Your task to perform on an android device: add a label to a message in the gmail app Image 0: 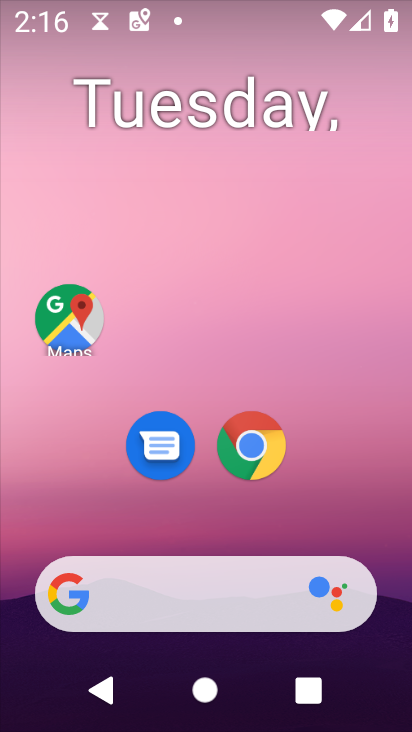
Step 0: drag from (344, 562) to (305, 86)
Your task to perform on an android device: add a label to a message in the gmail app Image 1: 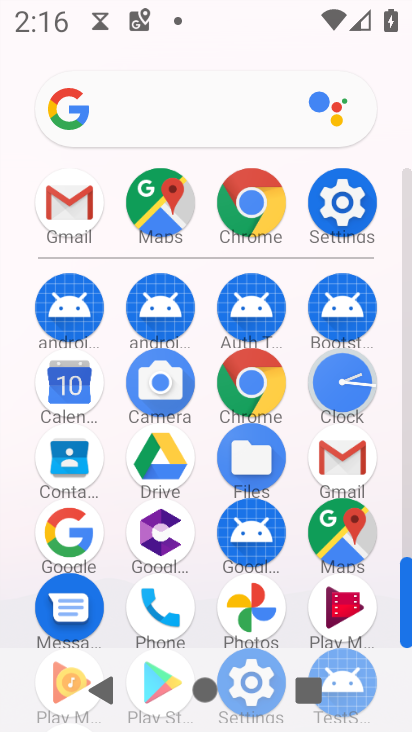
Step 1: click (328, 466)
Your task to perform on an android device: add a label to a message in the gmail app Image 2: 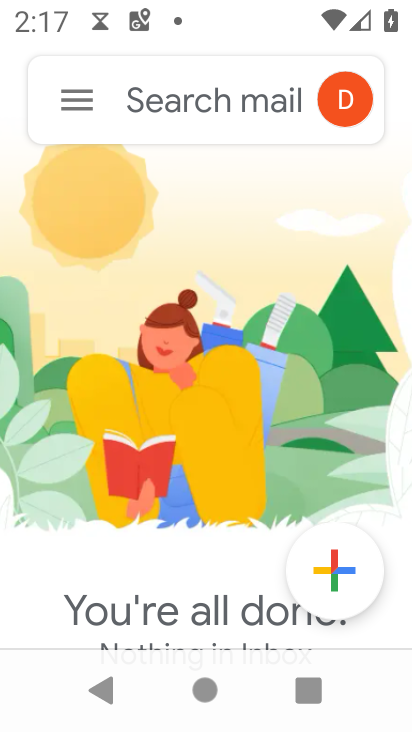
Step 2: click (81, 102)
Your task to perform on an android device: add a label to a message in the gmail app Image 3: 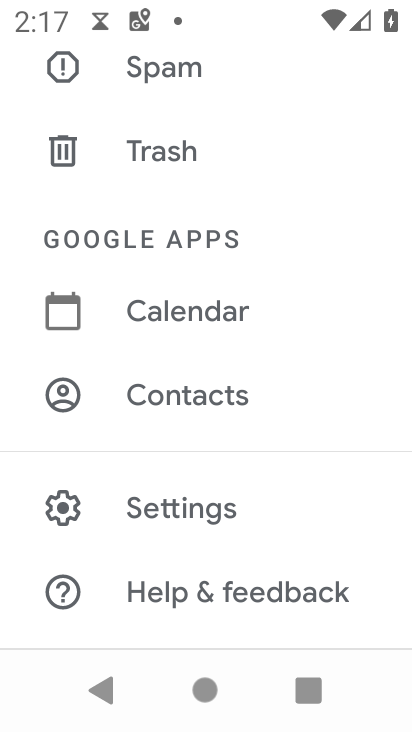
Step 3: drag from (209, 234) to (242, 672)
Your task to perform on an android device: add a label to a message in the gmail app Image 4: 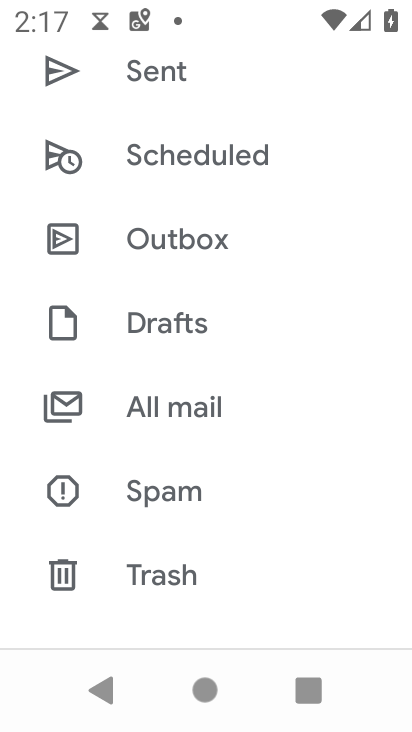
Step 4: drag from (190, 255) to (239, 533)
Your task to perform on an android device: add a label to a message in the gmail app Image 5: 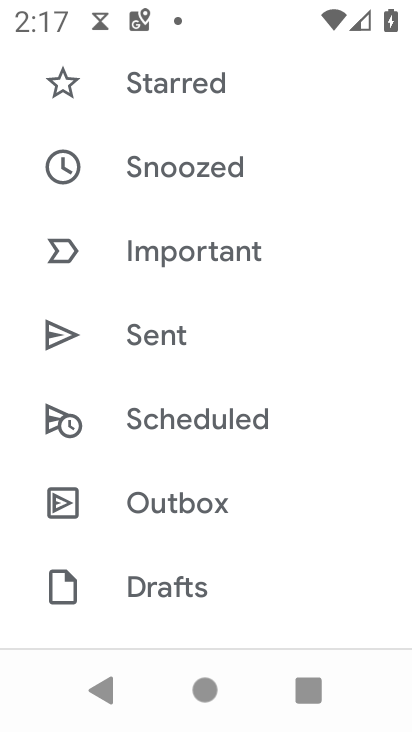
Step 5: drag from (252, 260) to (218, 602)
Your task to perform on an android device: add a label to a message in the gmail app Image 6: 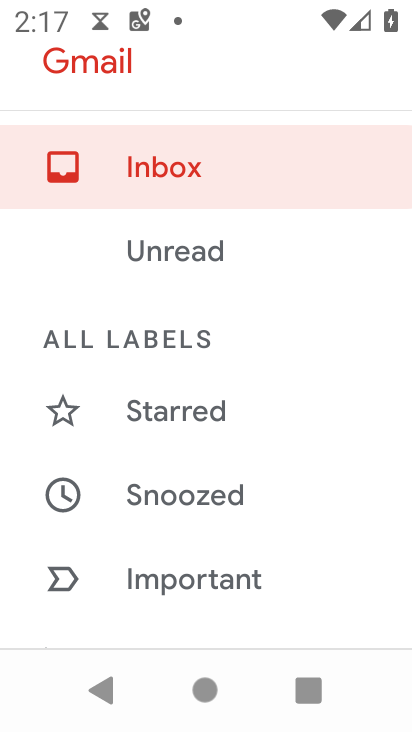
Step 6: drag from (272, 663) to (216, 95)
Your task to perform on an android device: add a label to a message in the gmail app Image 7: 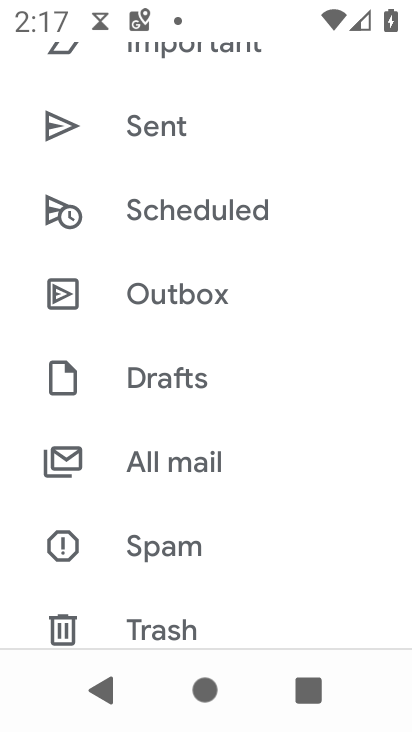
Step 7: drag from (299, 561) to (304, 621)
Your task to perform on an android device: add a label to a message in the gmail app Image 8: 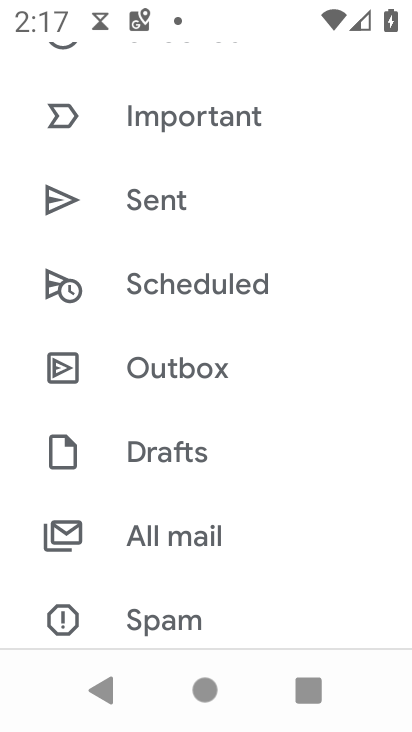
Step 8: drag from (301, 366) to (387, 712)
Your task to perform on an android device: add a label to a message in the gmail app Image 9: 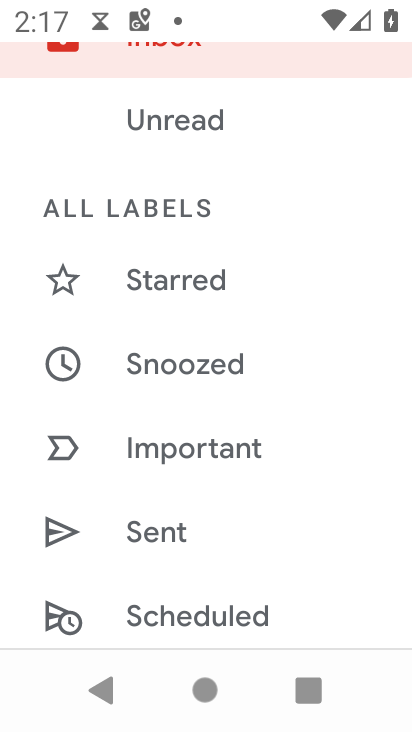
Step 9: click (178, 266)
Your task to perform on an android device: add a label to a message in the gmail app Image 10: 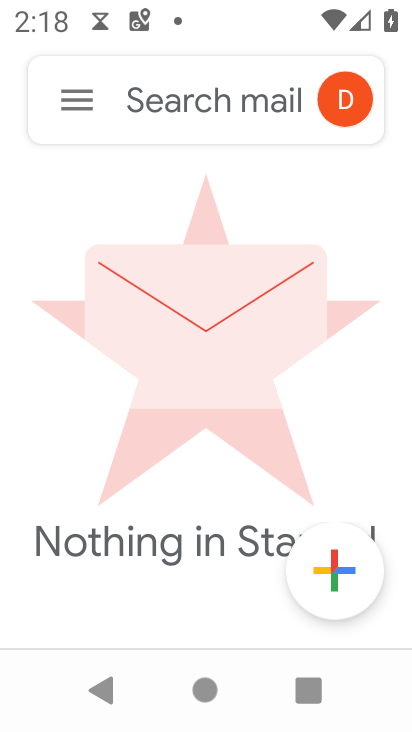
Step 10: task complete